Your task to perform on an android device: Open calendar and show me the second week of next month Image 0: 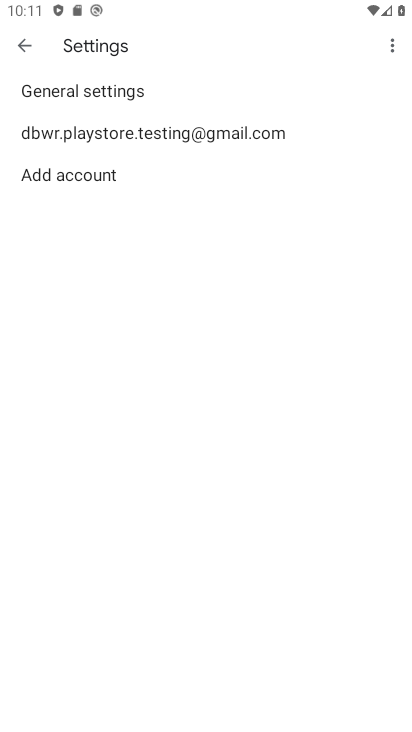
Step 0: press home button
Your task to perform on an android device: Open calendar and show me the second week of next month Image 1: 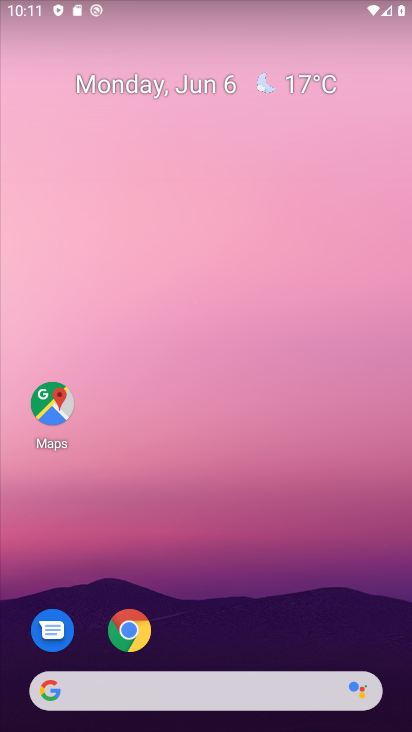
Step 1: drag from (327, 582) to (332, 104)
Your task to perform on an android device: Open calendar and show me the second week of next month Image 2: 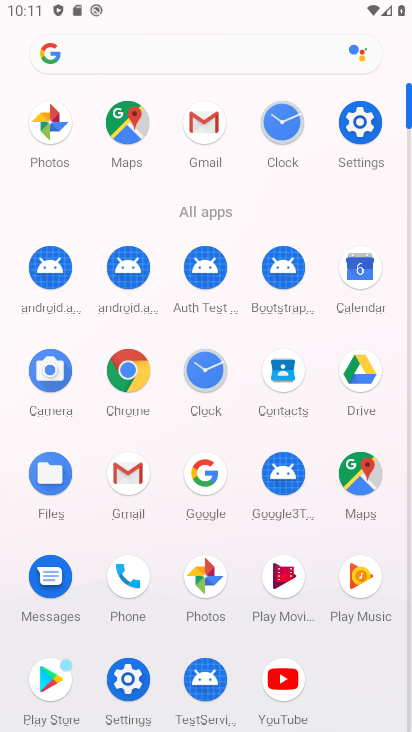
Step 2: click (373, 263)
Your task to perform on an android device: Open calendar and show me the second week of next month Image 3: 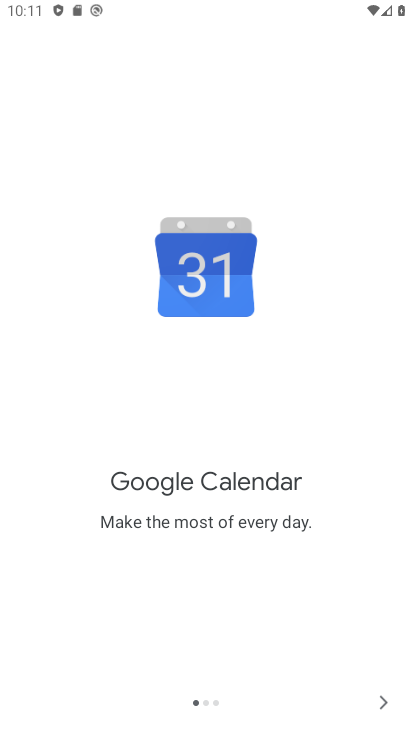
Step 3: click (385, 704)
Your task to perform on an android device: Open calendar and show me the second week of next month Image 4: 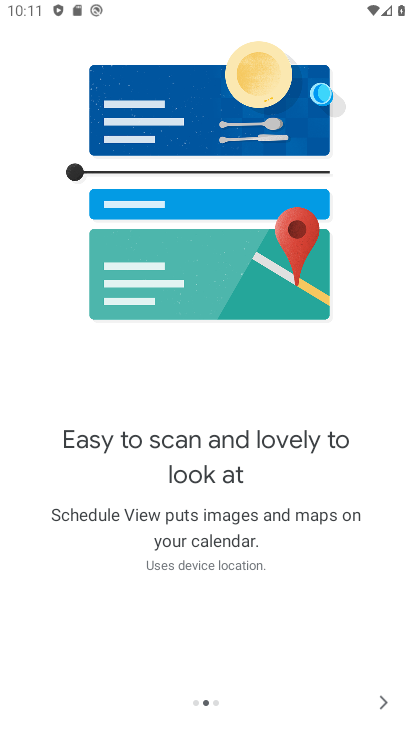
Step 4: click (384, 703)
Your task to perform on an android device: Open calendar and show me the second week of next month Image 5: 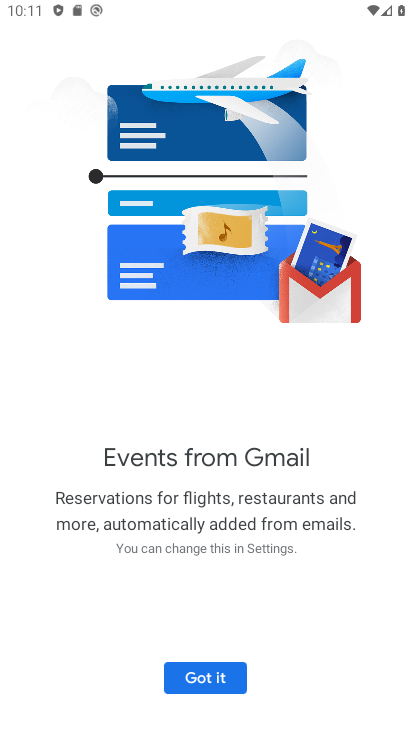
Step 5: click (202, 680)
Your task to perform on an android device: Open calendar and show me the second week of next month Image 6: 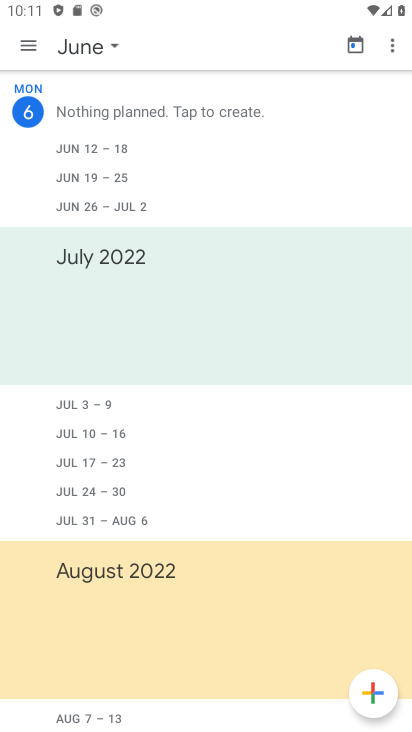
Step 6: click (91, 39)
Your task to perform on an android device: Open calendar and show me the second week of next month Image 7: 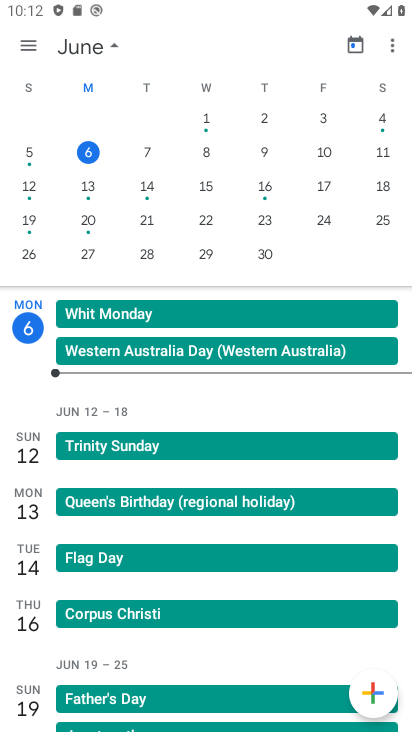
Step 7: task complete